Your task to perform on an android device: move an email to a new category in the gmail app Image 0: 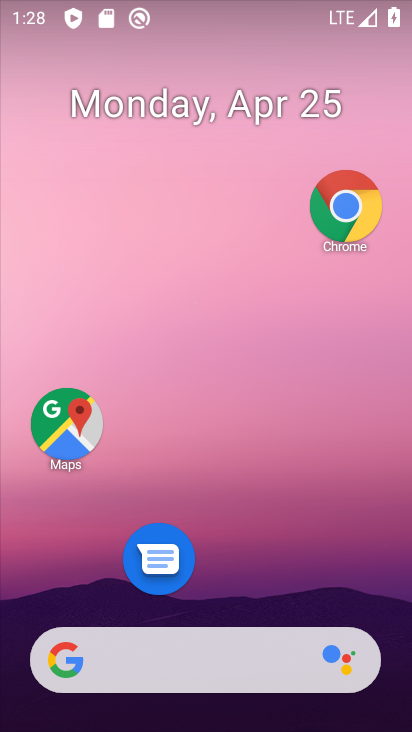
Step 0: drag from (264, 449) to (290, 88)
Your task to perform on an android device: move an email to a new category in the gmail app Image 1: 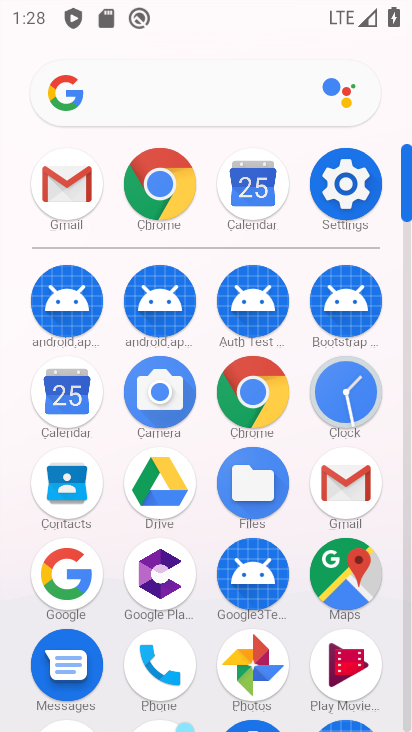
Step 1: click (64, 181)
Your task to perform on an android device: move an email to a new category in the gmail app Image 2: 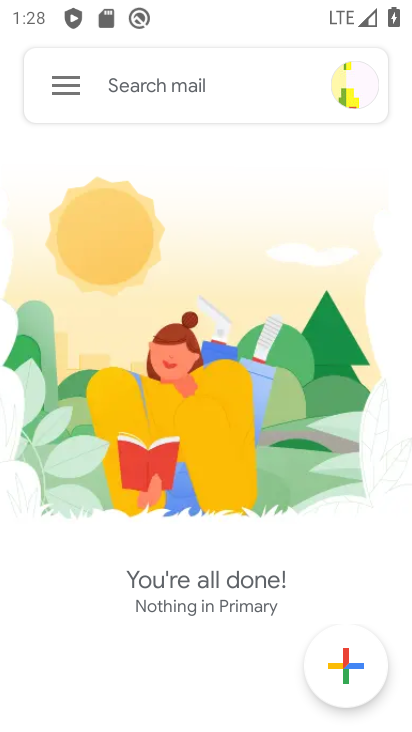
Step 2: click (65, 74)
Your task to perform on an android device: move an email to a new category in the gmail app Image 3: 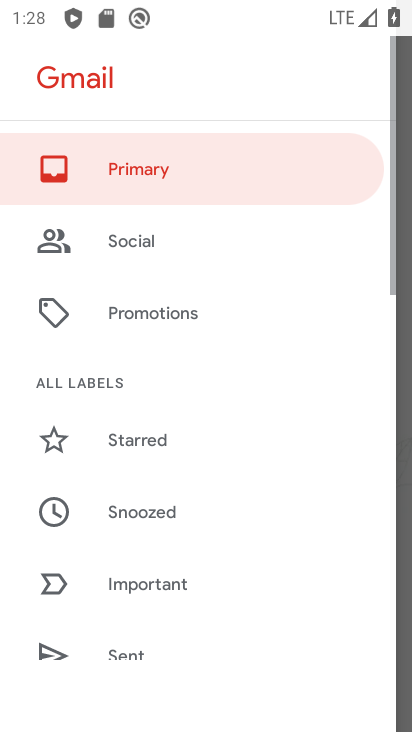
Step 3: drag from (207, 605) to (293, 42)
Your task to perform on an android device: move an email to a new category in the gmail app Image 4: 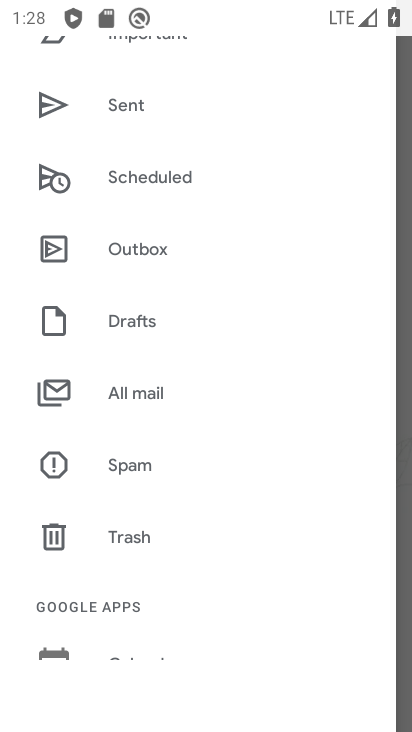
Step 4: click (156, 394)
Your task to perform on an android device: move an email to a new category in the gmail app Image 5: 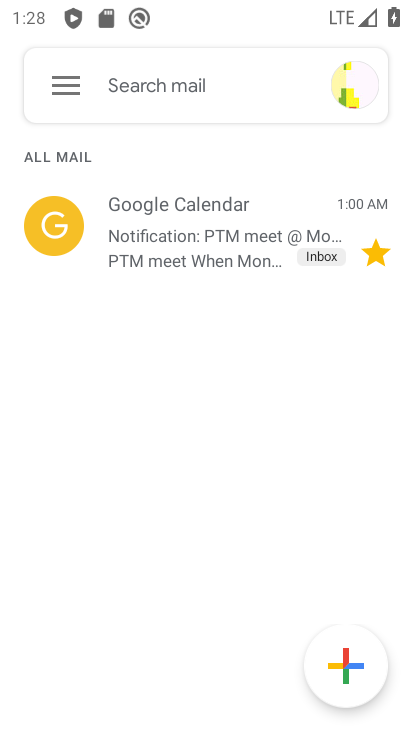
Step 5: click (190, 233)
Your task to perform on an android device: move an email to a new category in the gmail app Image 6: 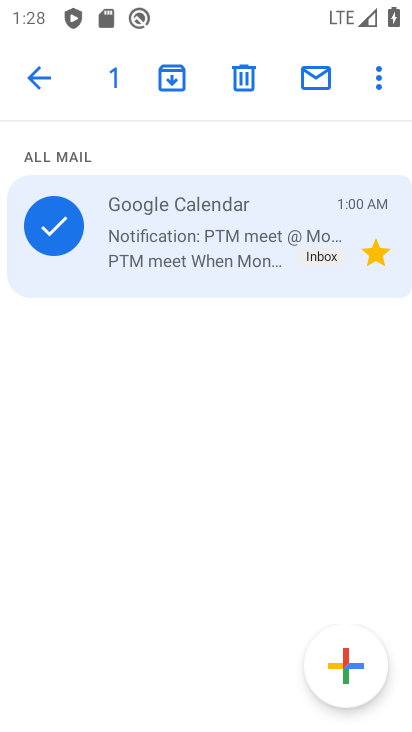
Step 6: click (374, 74)
Your task to perform on an android device: move an email to a new category in the gmail app Image 7: 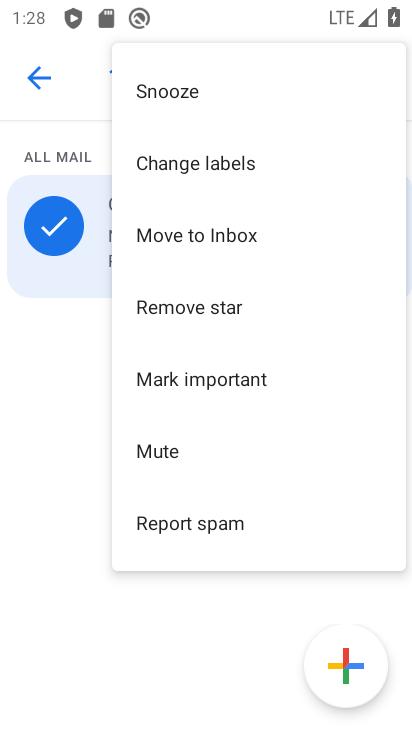
Step 7: click (215, 230)
Your task to perform on an android device: move an email to a new category in the gmail app Image 8: 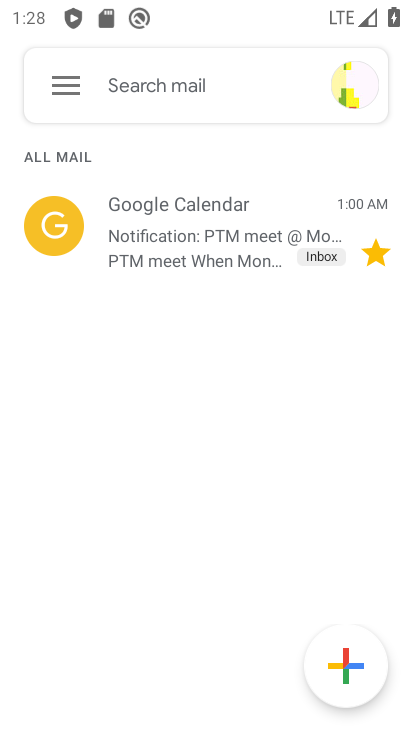
Step 8: task complete